Your task to perform on an android device: turn on wifi Image 0: 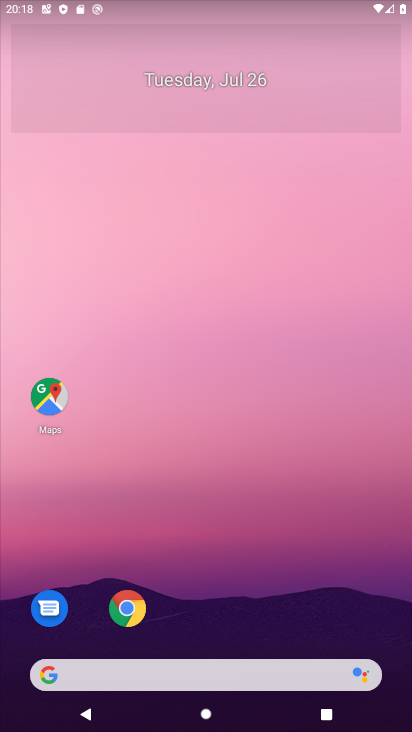
Step 0: click (78, 673)
Your task to perform on an android device: turn on wifi Image 1: 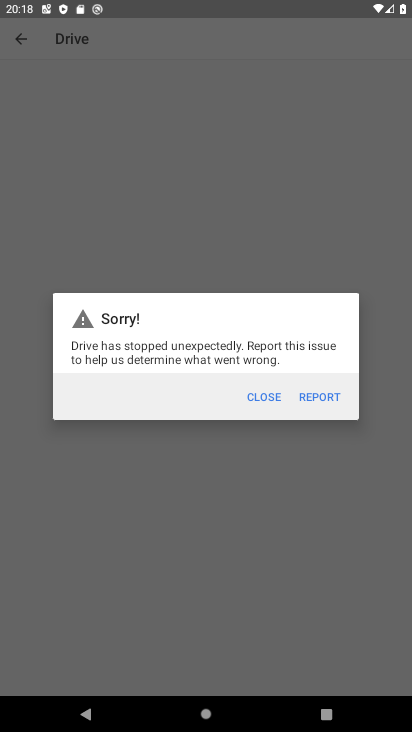
Step 1: press home button
Your task to perform on an android device: turn on wifi Image 2: 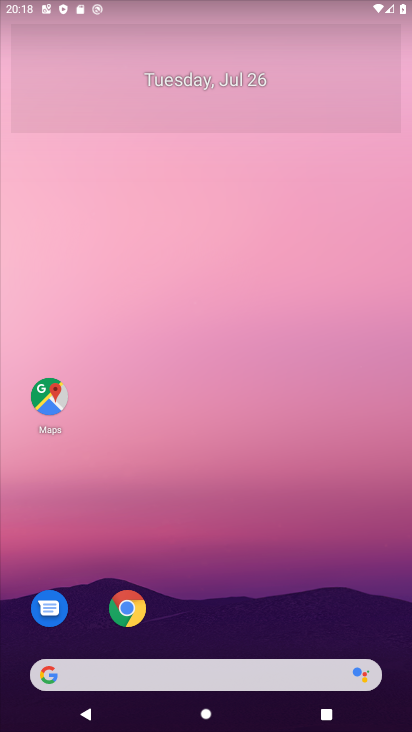
Step 2: drag from (32, 690) to (283, 188)
Your task to perform on an android device: turn on wifi Image 3: 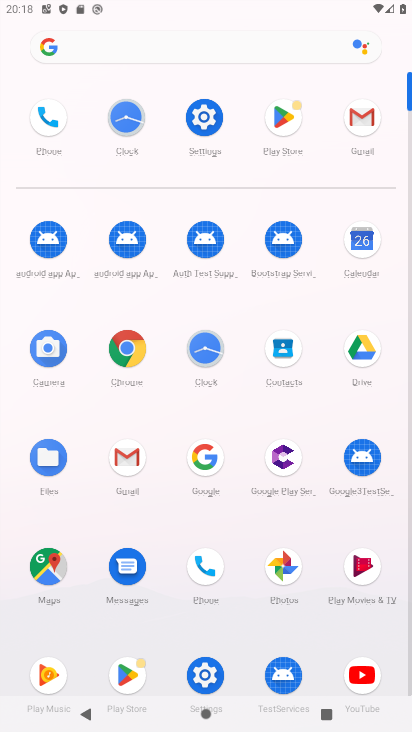
Step 3: click (204, 689)
Your task to perform on an android device: turn on wifi Image 4: 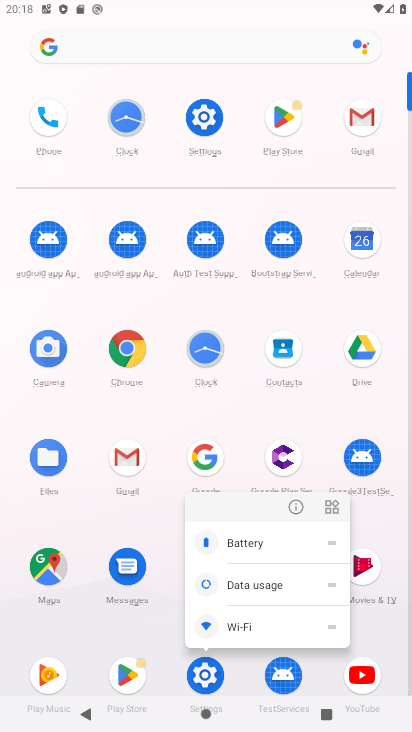
Step 4: click (201, 680)
Your task to perform on an android device: turn on wifi Image 5: 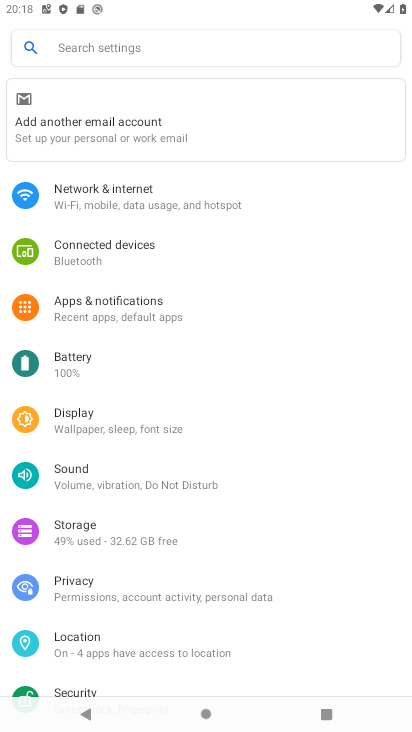
Step 5: click (114, 193)
Your task to perform on an android device: turn on wifi Image 6: 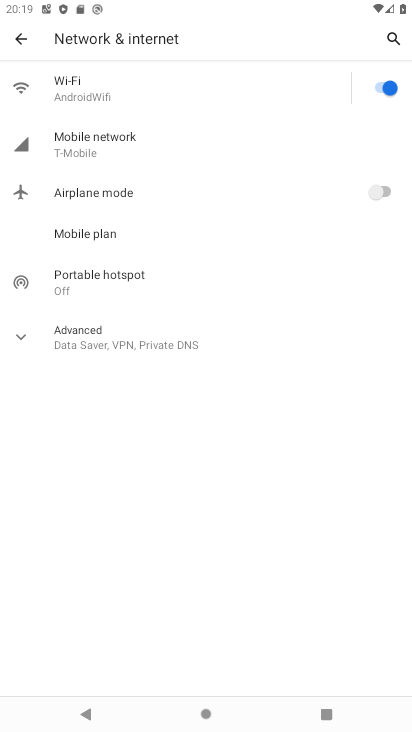
Step 6: task complete